Your task to perform on an android device: See recent photos Image 0: 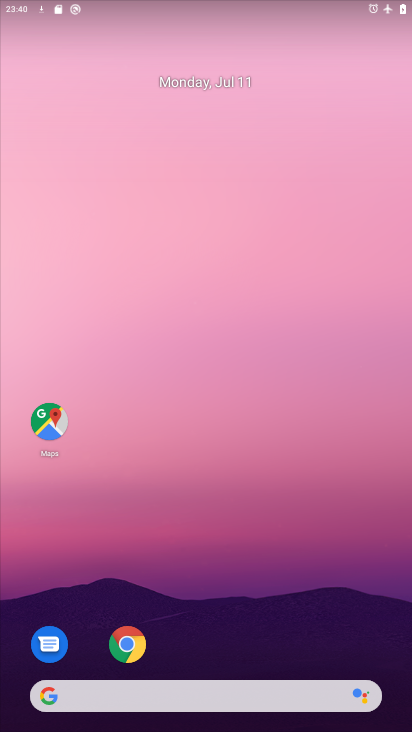
Step 0: drag from (295, 587) to (366, 247)
Your task to perform on an android device: See recent photos Image 1: 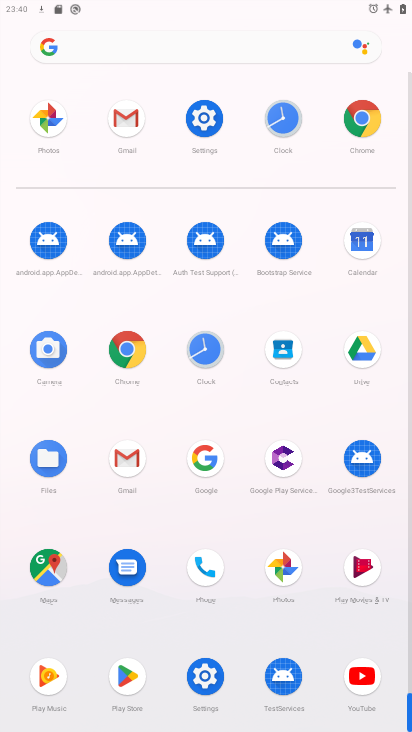
Step 1: click (43, 107)
Your task to perform on an android device: See recent photos Image 2: 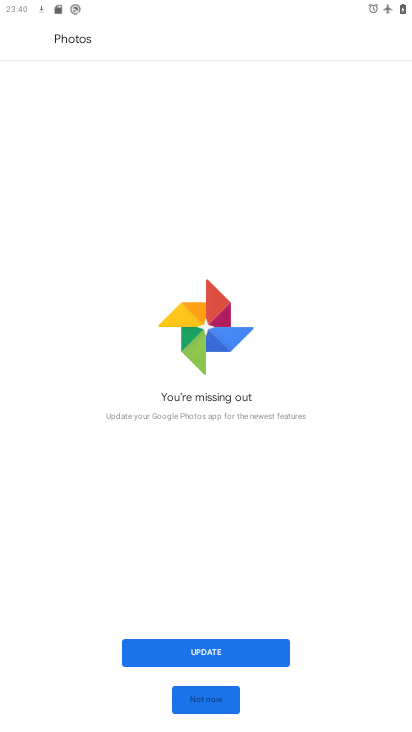
Step 2: click (210, 709)
Your task to perform on an android device: See recent photos Image 3: 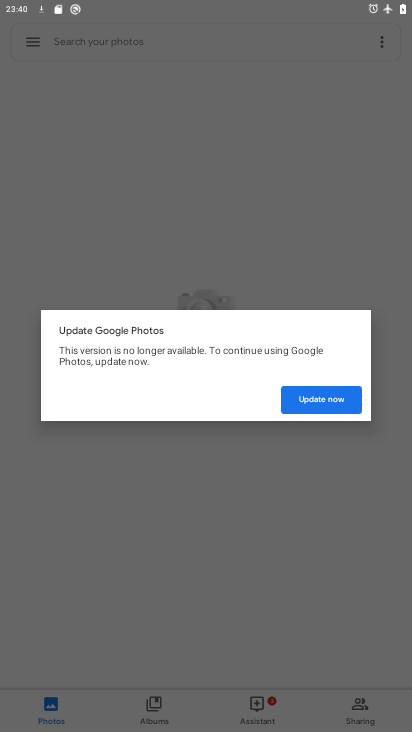
Step 3: click (330, 398)
Your task to perform on an android device: See recent photos Image 4: 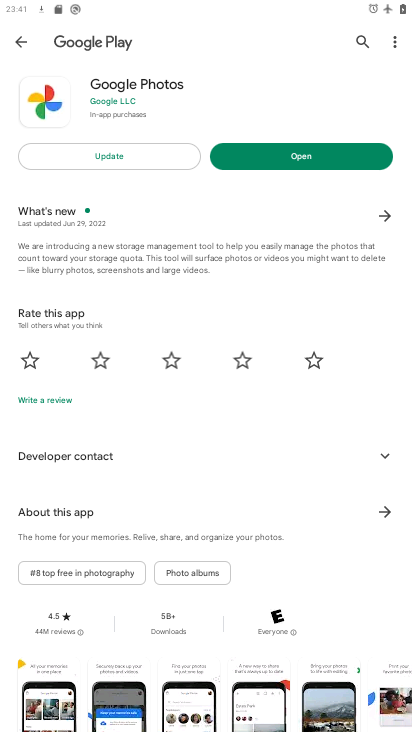
Step 4: press back button
Your task to perform on an android device: See recent photos Image 5: 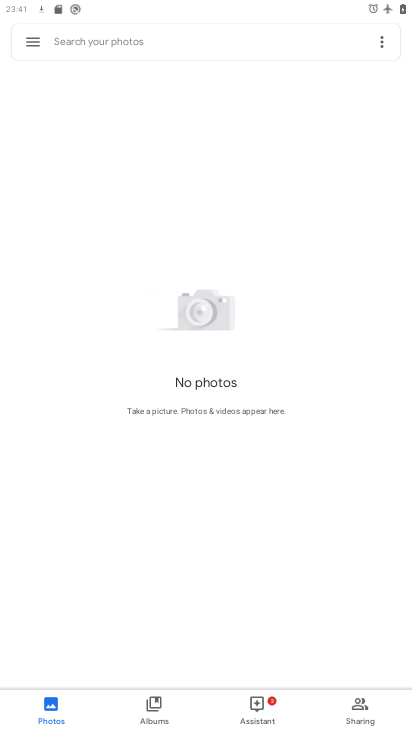
Step 5: click (157, 683)
Your task to perform on an android device: See recent photos Image 6: 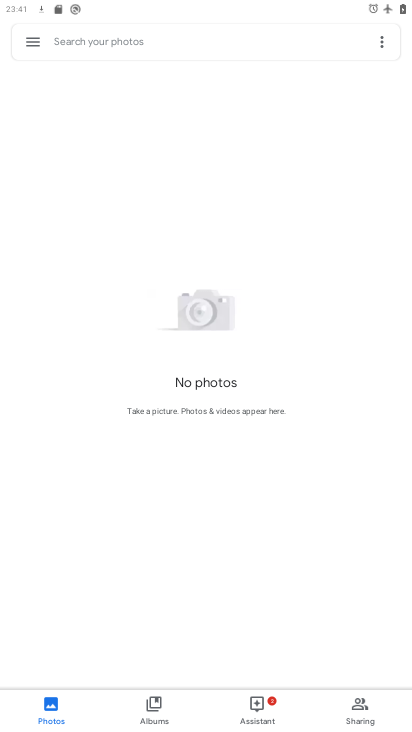
Step 6: click (155, 711)
Your task to perform on an android device: See recent photos Image 7: 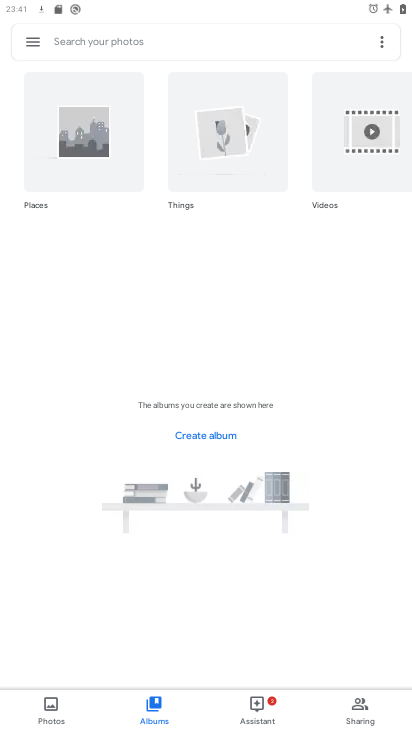
Step 7: task complete